Your task to perform on an android device: Open the web browser Image 0: 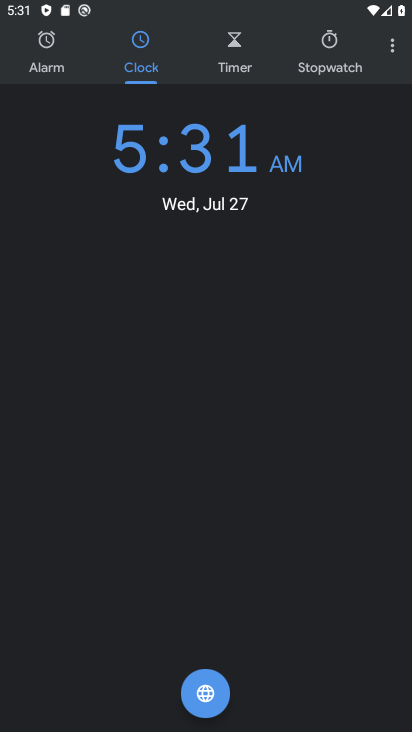
Step 0: press home button
Your task to perform on an android device: Open the web browser Image 1: 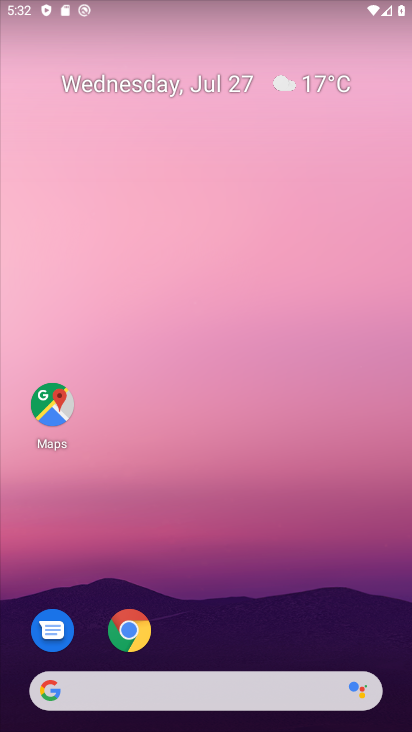
Step 1: click (131, 626)
Your task to perform on an android device: Open the web browser Image 2: 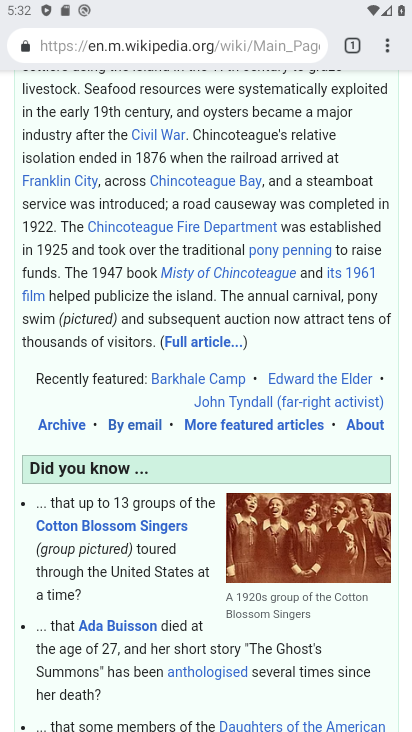
Step 2: click (345, 50)
Your task to perform on an android device: Open the web browser Image 3: 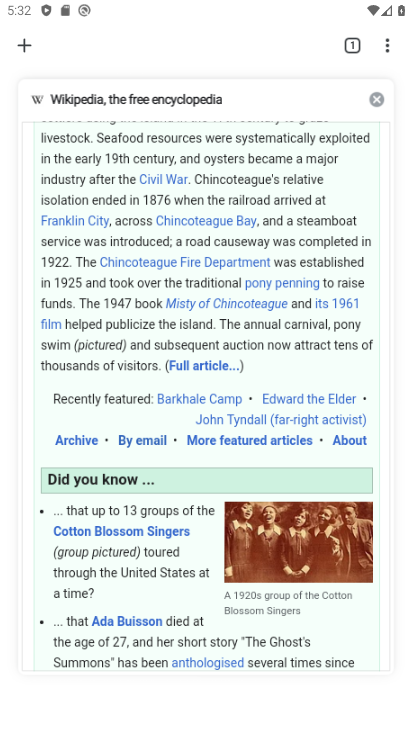
Step 3: click (24, 44)
Your task to perform on an android device: Open the web browser Image 4: 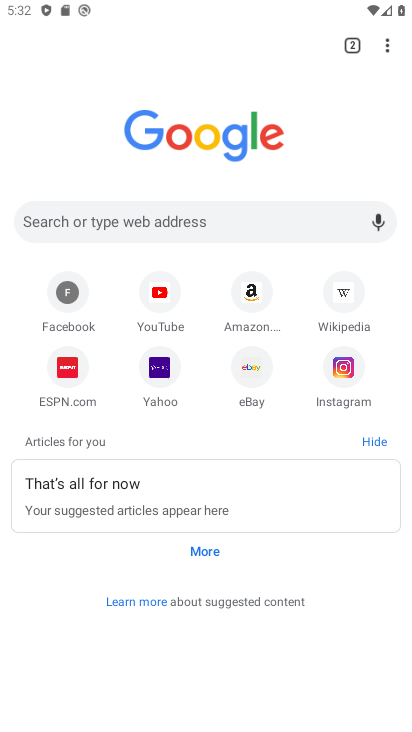
Step 4: task complete